Your task to perform on an android device: choose inbox layout in the gmail app Image 0: 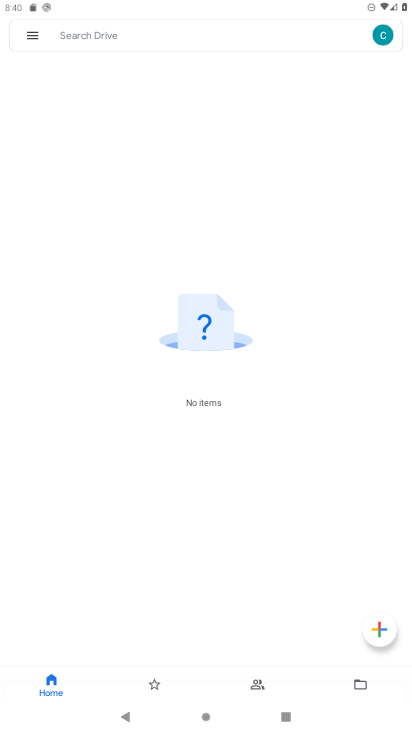
Step 0: press home button
Your task to perform on an android device: choose inbox layout in the gmail app Image 1: 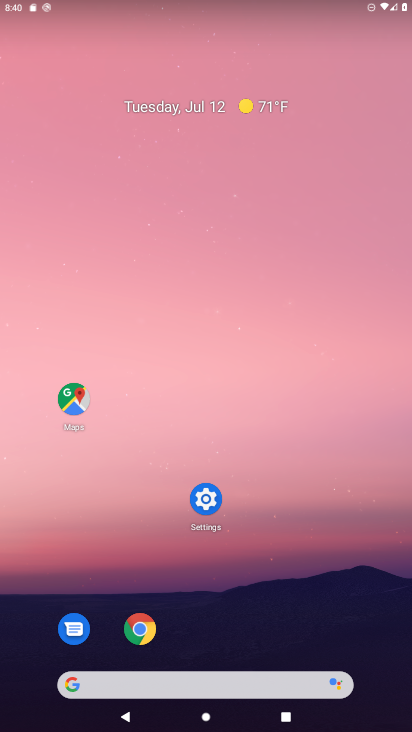
Step 1: drag from (377, 701) to (322, 157)
Your task to perform on an android device: choose inbox layout in the gmail app Image 2: 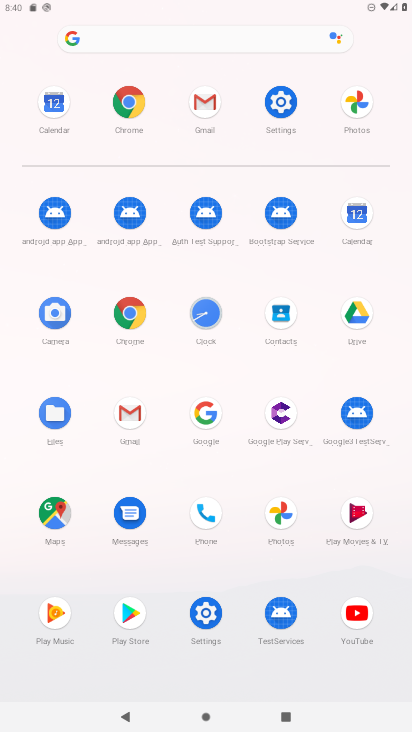
Step 2: click (138, 415)
Your task to perform on an android device: choose inbox layout in the gmail app Image 3: 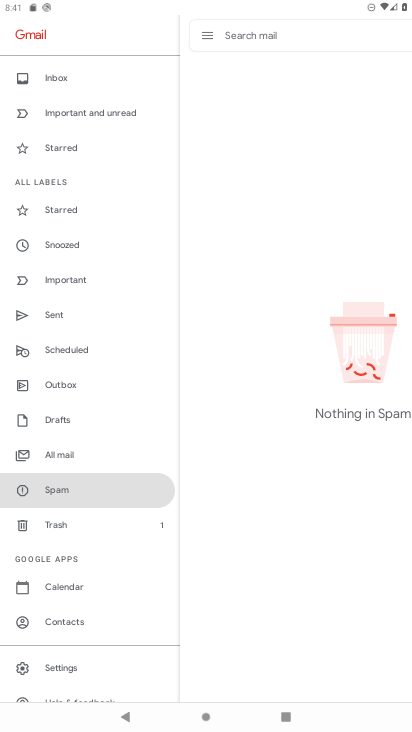
Step 3: click (63, 664)
Your task to perform on an android device: choose inbox layout in the gmail app Image 4: 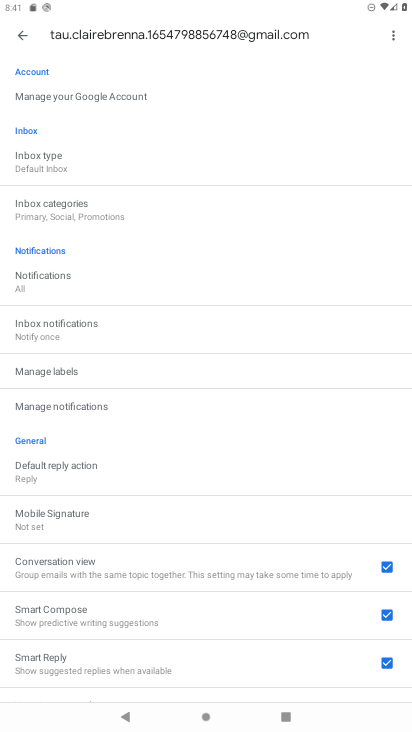
Step 4: click (43, 154)
Your task to perform on an android device: choose inbox layout in the gmail app Image 5: 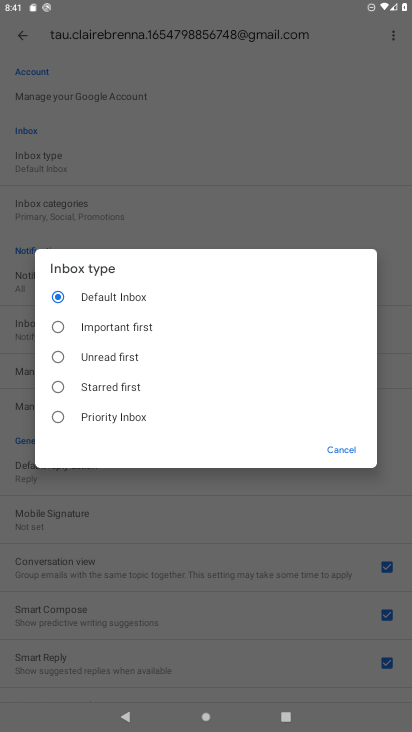
Step 5: click (54, 325)
Your task to perform on an android device: choose inbox layout in the gmail app Image 6: 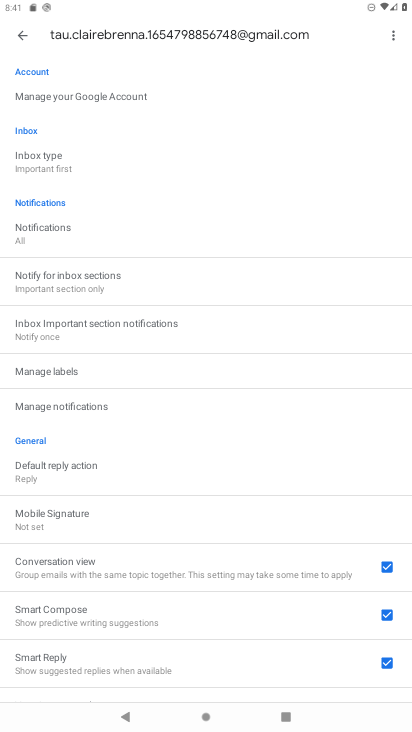
Step 6: click (39, 168)
Your task to perform on an android device: choose inbox layout in the gmail app Image 7: 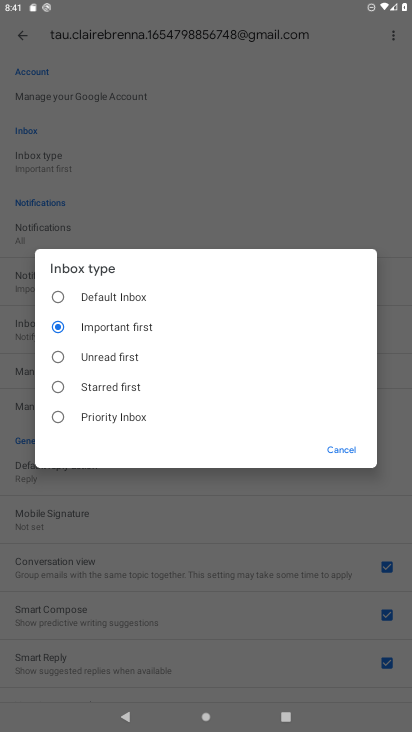
Step 7: task complete